Your task to perform on an android device: turn on improve location accuracy Image 0: 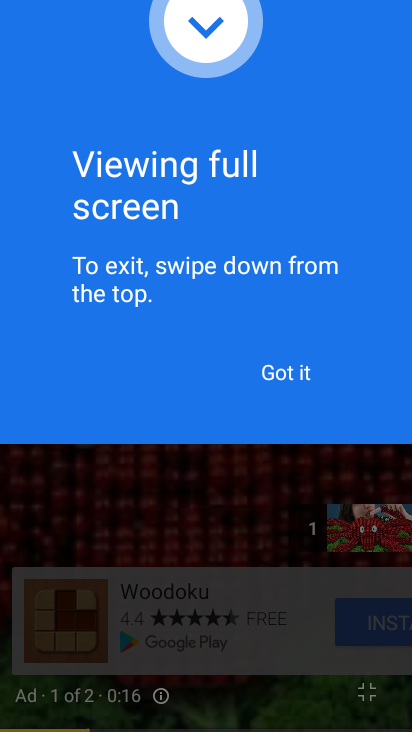
Step 0: press home button
Your task to perform on an android device: turn on improve location accuracy Image 1: 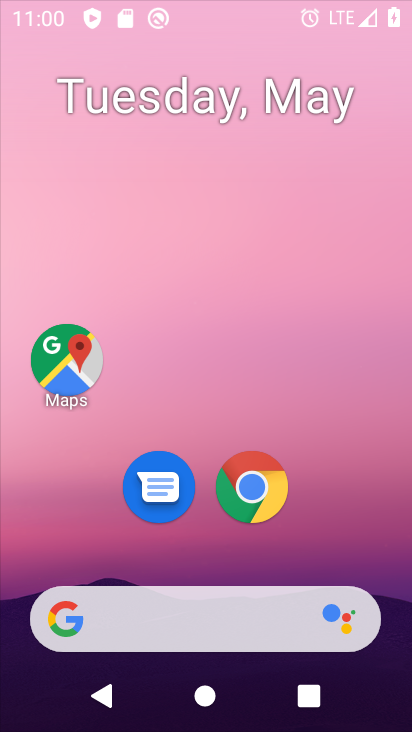
Step 1: drag from (238, 492) to (229, 121)
Your task to perform on an android device: turn on improve location accuracy Image 2: 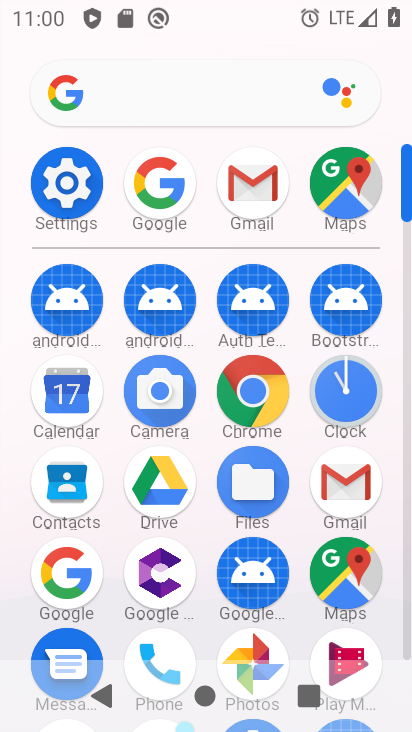
Step 2: click (68, 187)
Your task to perform on an android device: turn on improve location accuracy Image 3: 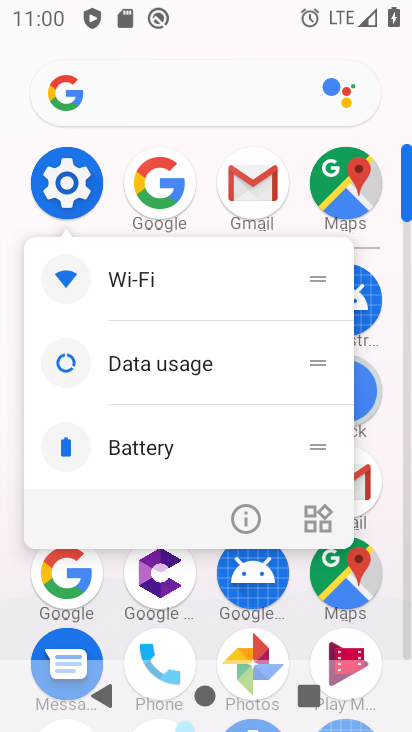
Step 3: click (230, 516)
Your task to perform on an android device: turn on improve location accuracy Image 4: 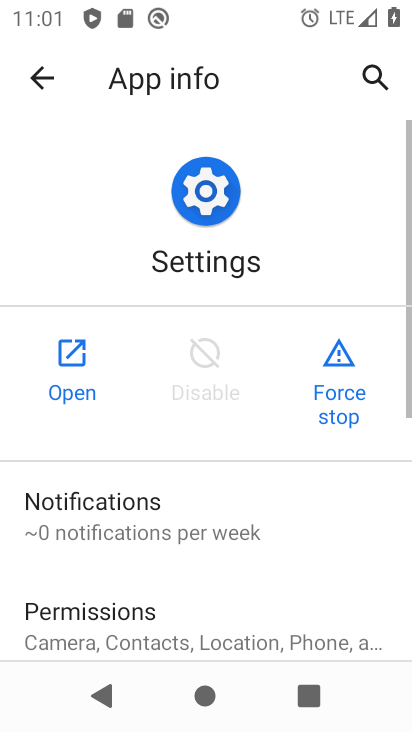
Step 4: click (92, 375)
Your task to perform on an android device: turn on improve location accuracy Image 5: 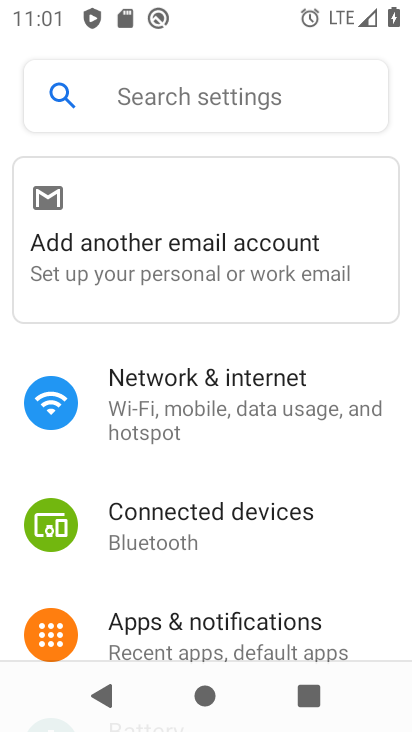
Step 5: drag from (243, 525) to (313, 125)
Your task to perform on an android device: turn on improve location accuracy Image 6: 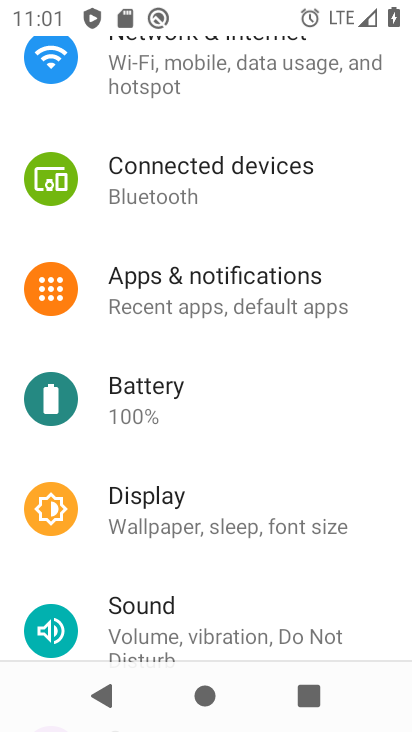
Step 6: drag from (207, 523) to (247, 169)
Your task to perform on an android device: turn on improve location accuracy Image 7: 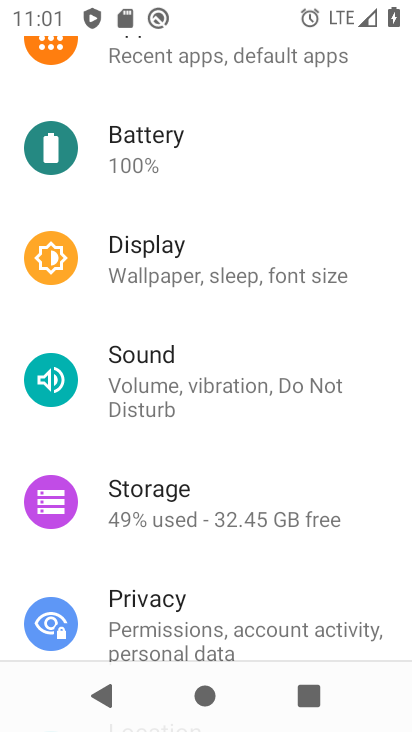
Step 7: drag from (222, 536) to (255, 196)
Your task to perform on an android device: turn on improve location accuracy Image 8: 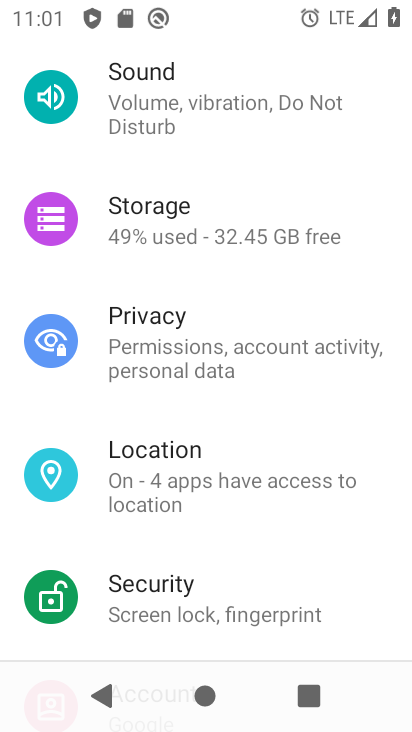
Step 8: click (182, 470)
Your task to perform on an android device: turn on improve location accuracy Image 9: 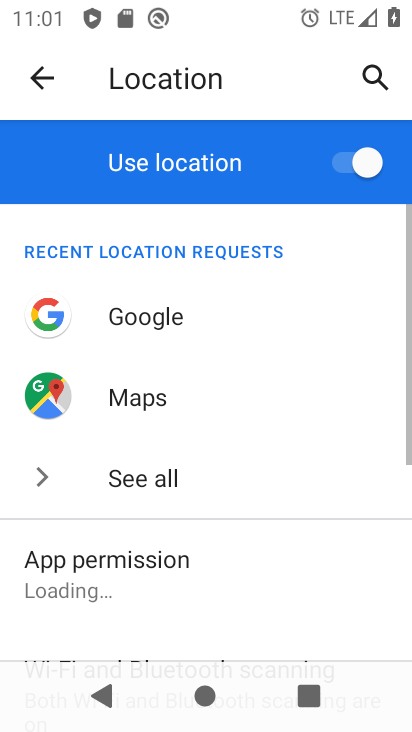
Step 9: drag from (226, 505) to (248, 129)
Your task to perform on an android device: turn on improve location accuracy Image 10: 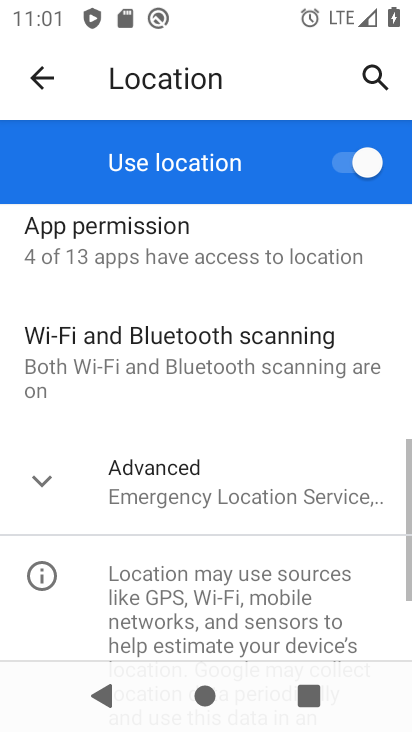
Step 10: drag from (170, 492) to (211, 172)
Your task to perform on an android device: turn on improve location accuracy Image 11: 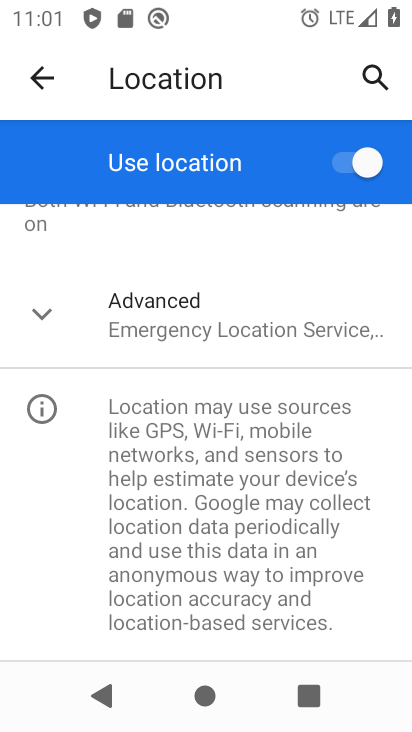
Step 11: click (173, 326)
Your task to perform on an android device: turn on improve location accuracy Image 12: 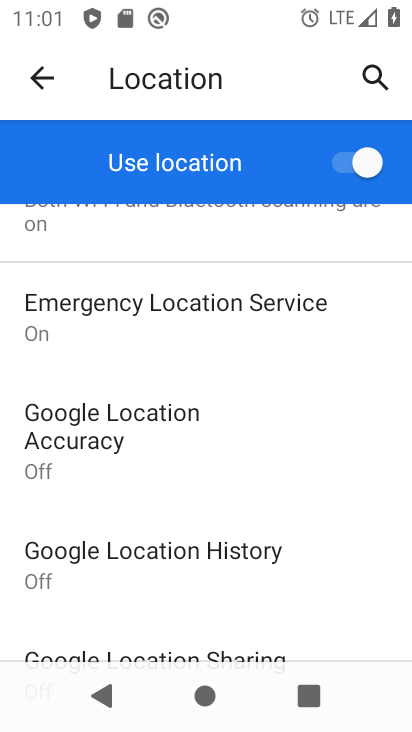
Step 12: click (158, 415)
Your task to perform on an android device: turn on improve location accuracy Image 13: 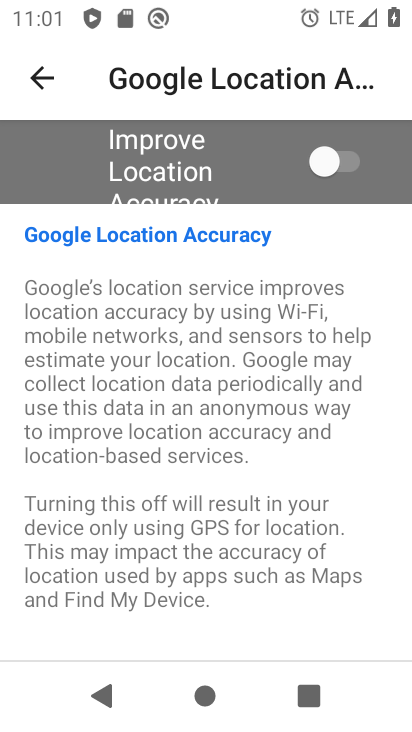
Step 13: click (327, 149)
Your task to perform on an android device: turn on improve location accuracy Image 14: 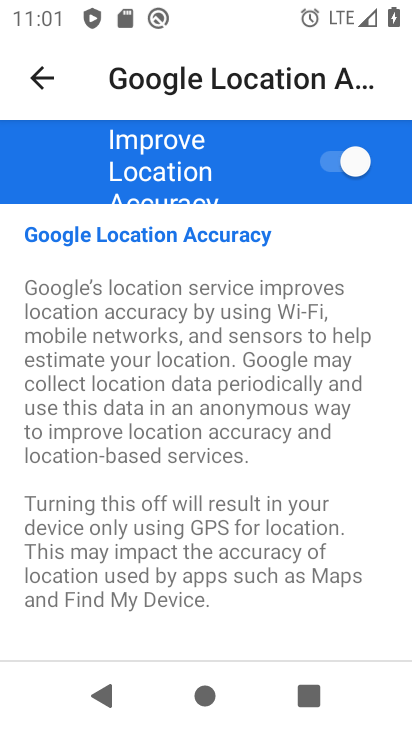
Step 14: task complete